Your task to perform on an android device: turn off improve location accuracy Image 0: 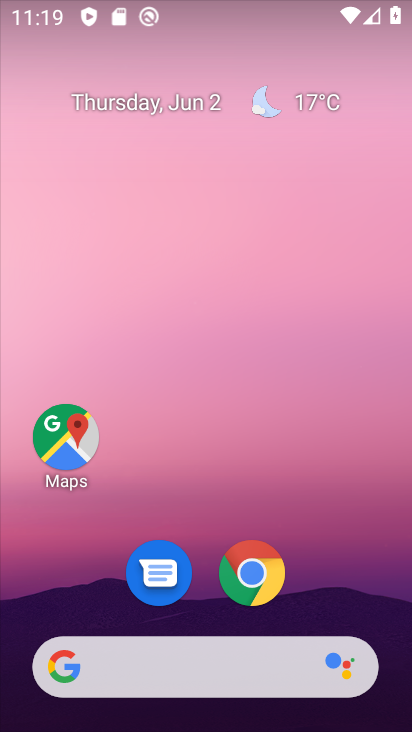
Step 0: task complete